Your task to perform on an android device: Open calendar and show me the fourth week of next month Image 0: 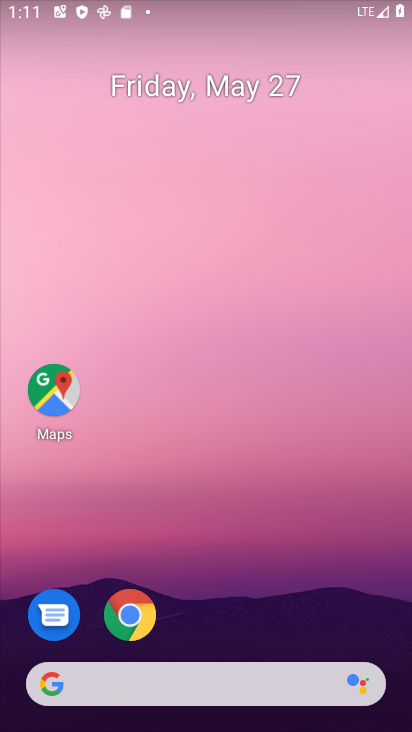
Step 0: drag from (264, 683) to (242, 54)
Your task to perform on an android device: Open calendar and show me the fourth week of next month Image 1: 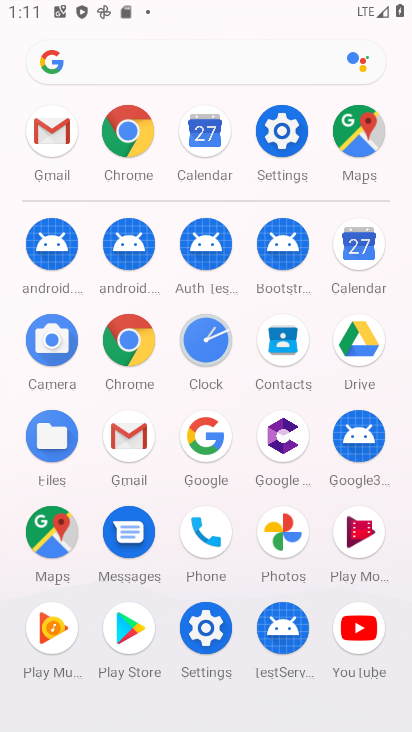
Step 1: click (364, 245)
Your task to perform on an android device: Open calendar and show me the fourth week of next month Image 2: 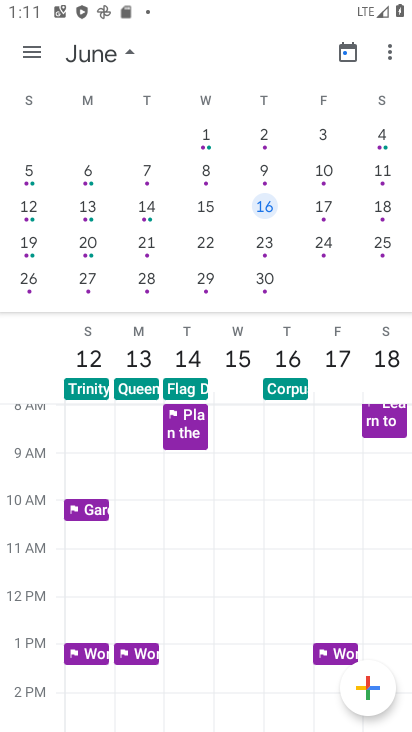
Step 2: click (258, 240)
Your task to perform on an android device: Open calendar and show me the fourth week of next month Image 3: 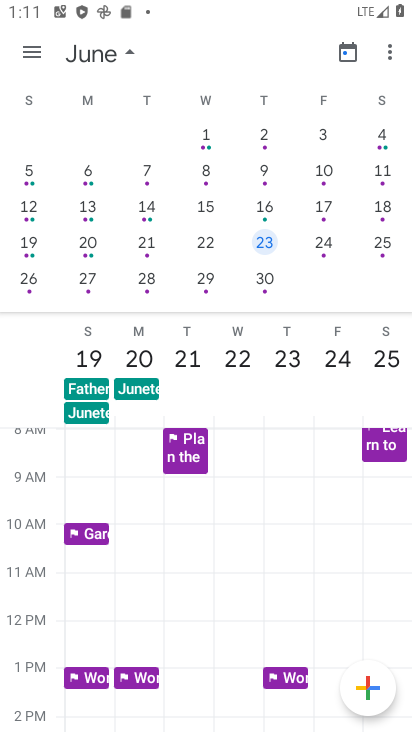
Step 3: task complete